Your task to perform on an android device: Clear all items from cart on ebay. Search for usb-a on ebay, select the first entry, and add it to the cart. Image 0: 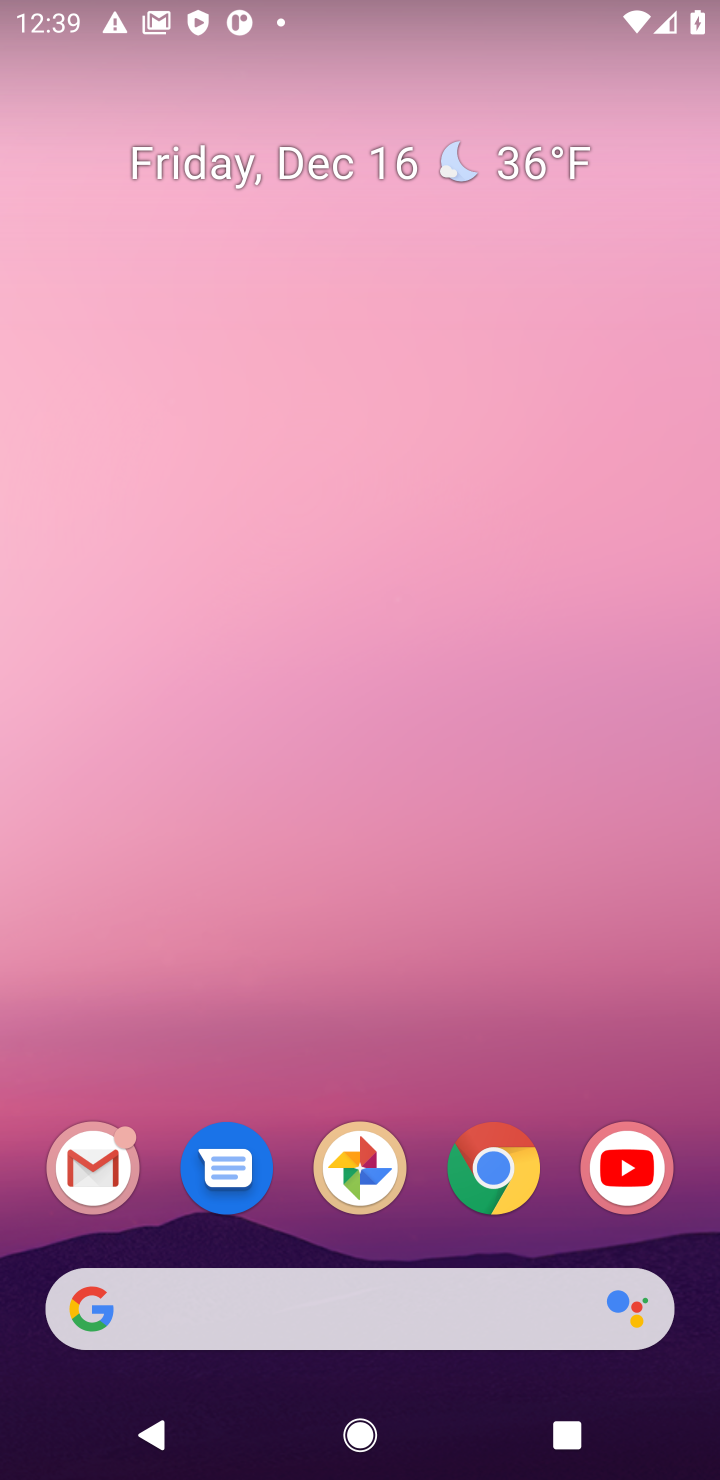
Step 0: click (486, 1158)
Your task to perform on an android device: Clear all items from cart on ebay. Search for usb-a on ebay, select the first entry, and add it to the cart. Image 1: 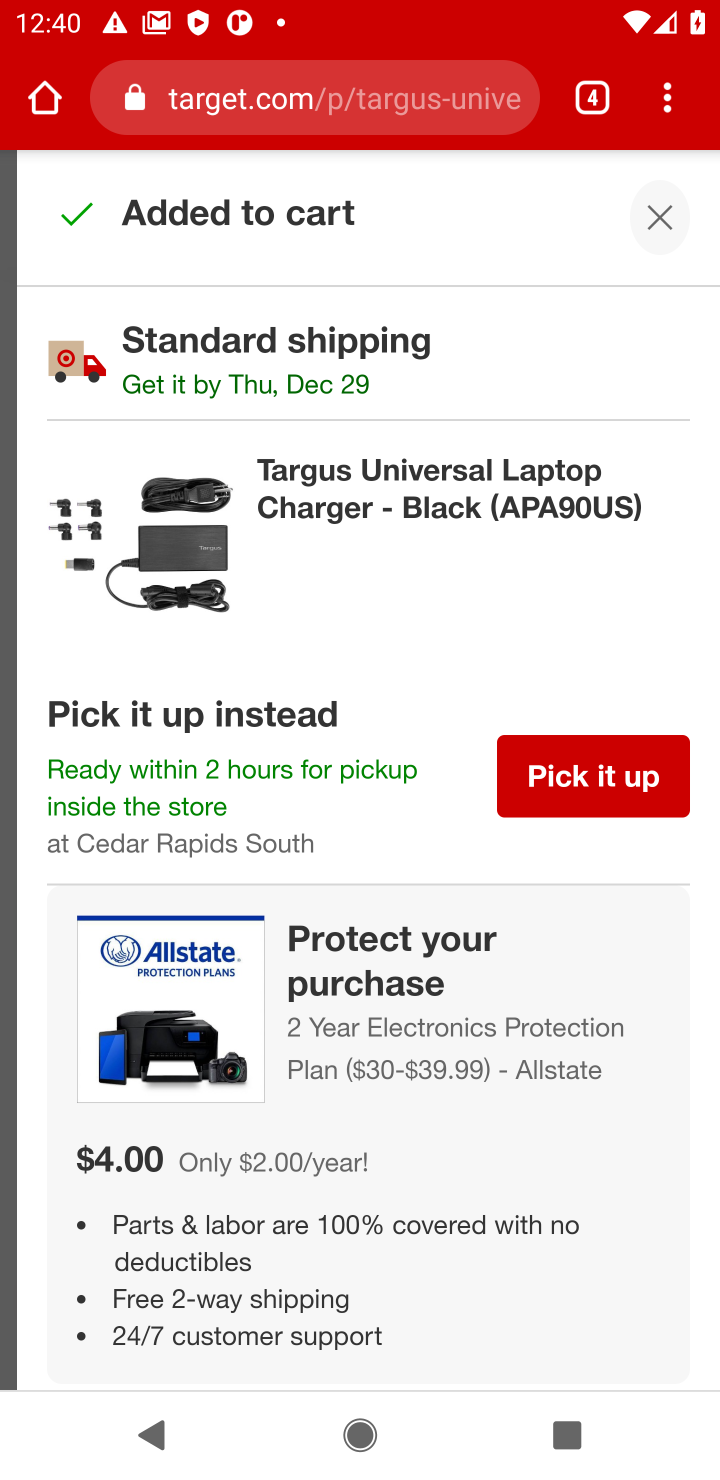
Step 1: click (664, 219)
Your task to perform on an android device: Clear all items from cart on ebay. Search for usb-a on ebay, select the first entry, and add it to the cart. Image 2: 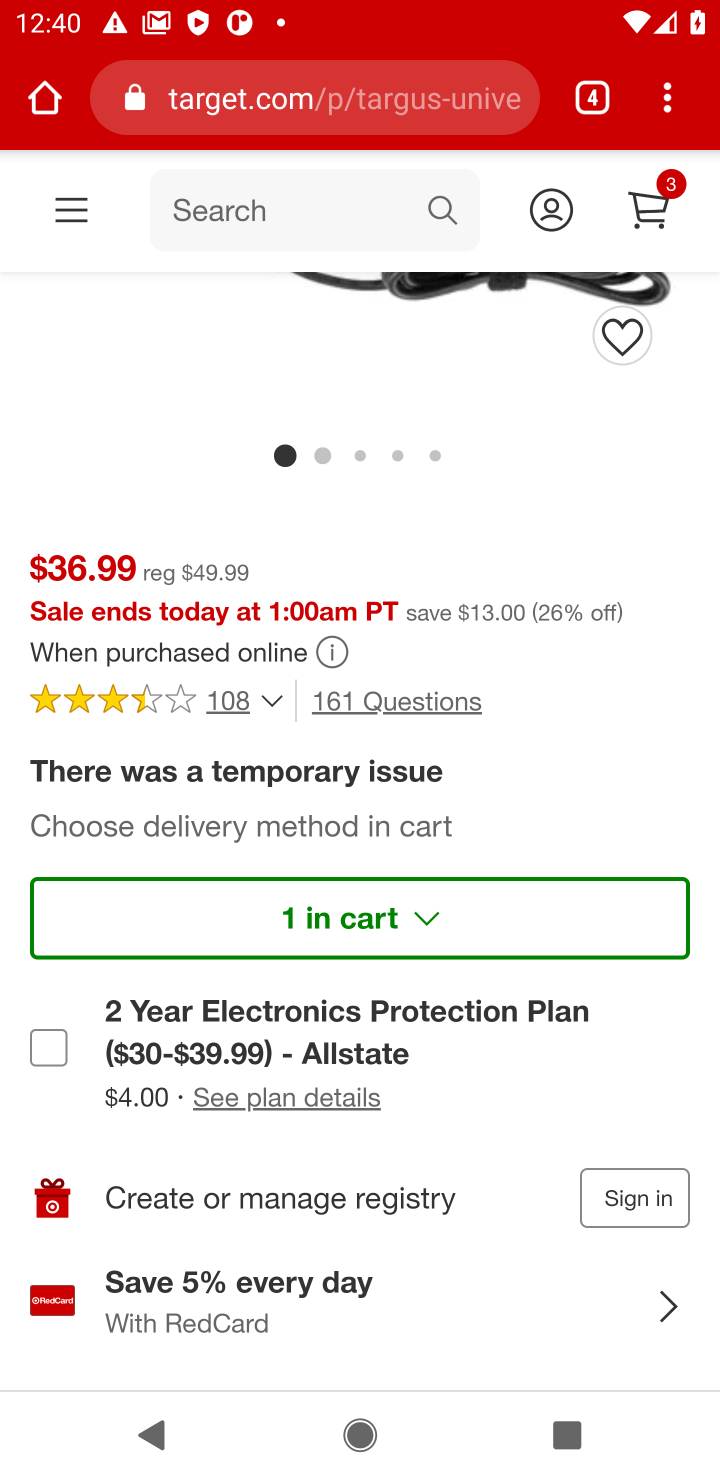
Step 2: click (655, 204)
Your task to perform on an android device: Clear all items from cart on ebay. Search for usb-a on ebay, select the first entry, and add it to the cart. Image 3: 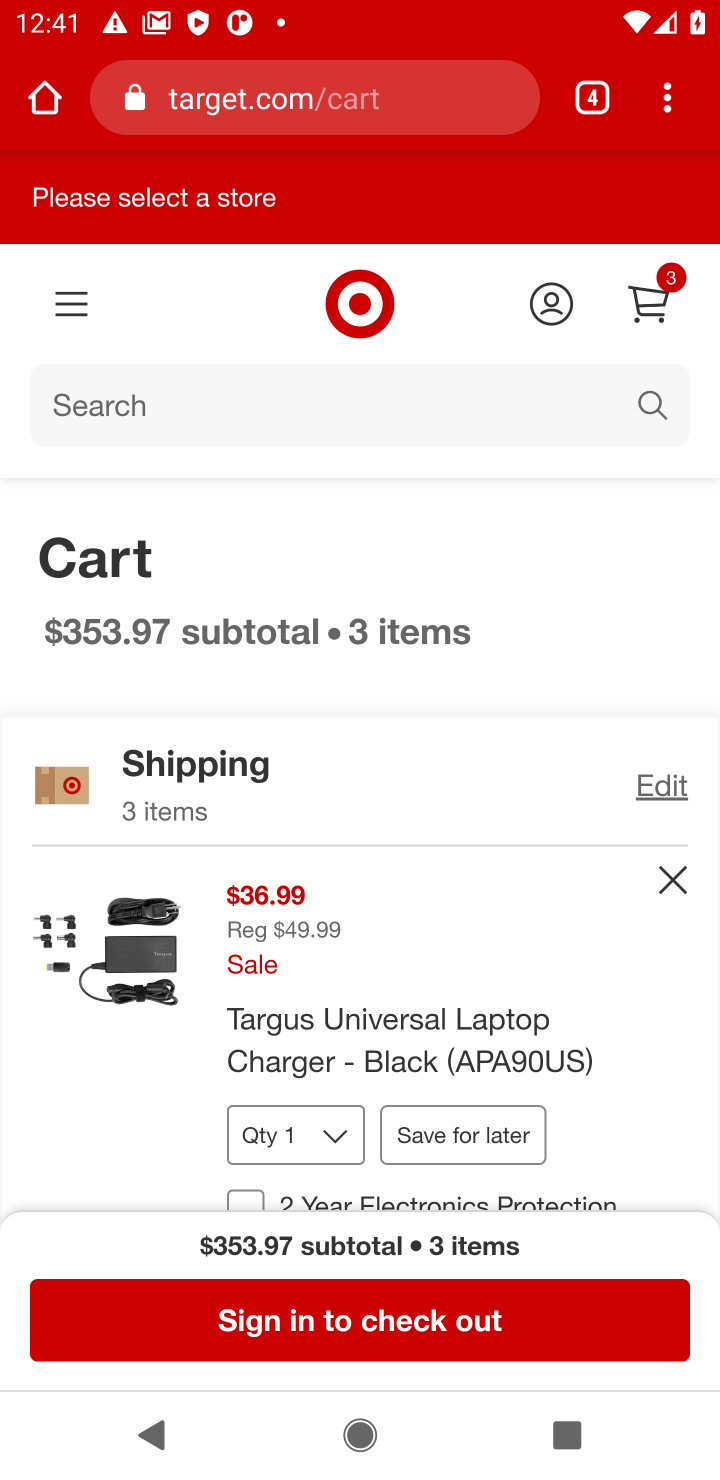
Step 3: click (654, 277)
Your task to perform on an android device: Clear all items from cart on ebay. Search for usb-a on ebay, select the first entry, and add it to the cart. Image 4: 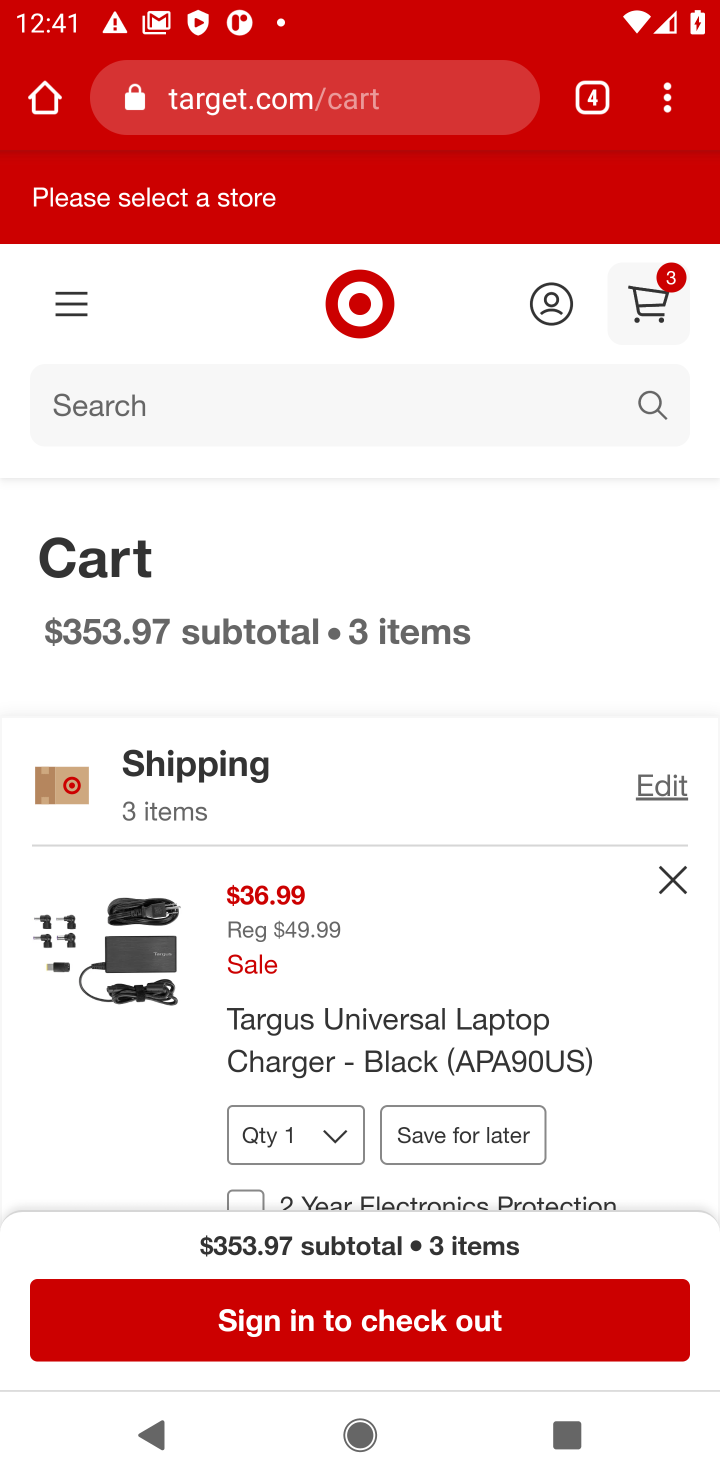
Step 4: click (661, 873)
Your task to perform on an android device: Clear all items from cart on ebay. Search for usb-a on ebay, select the first entry, and add it to the cart. Image 5: 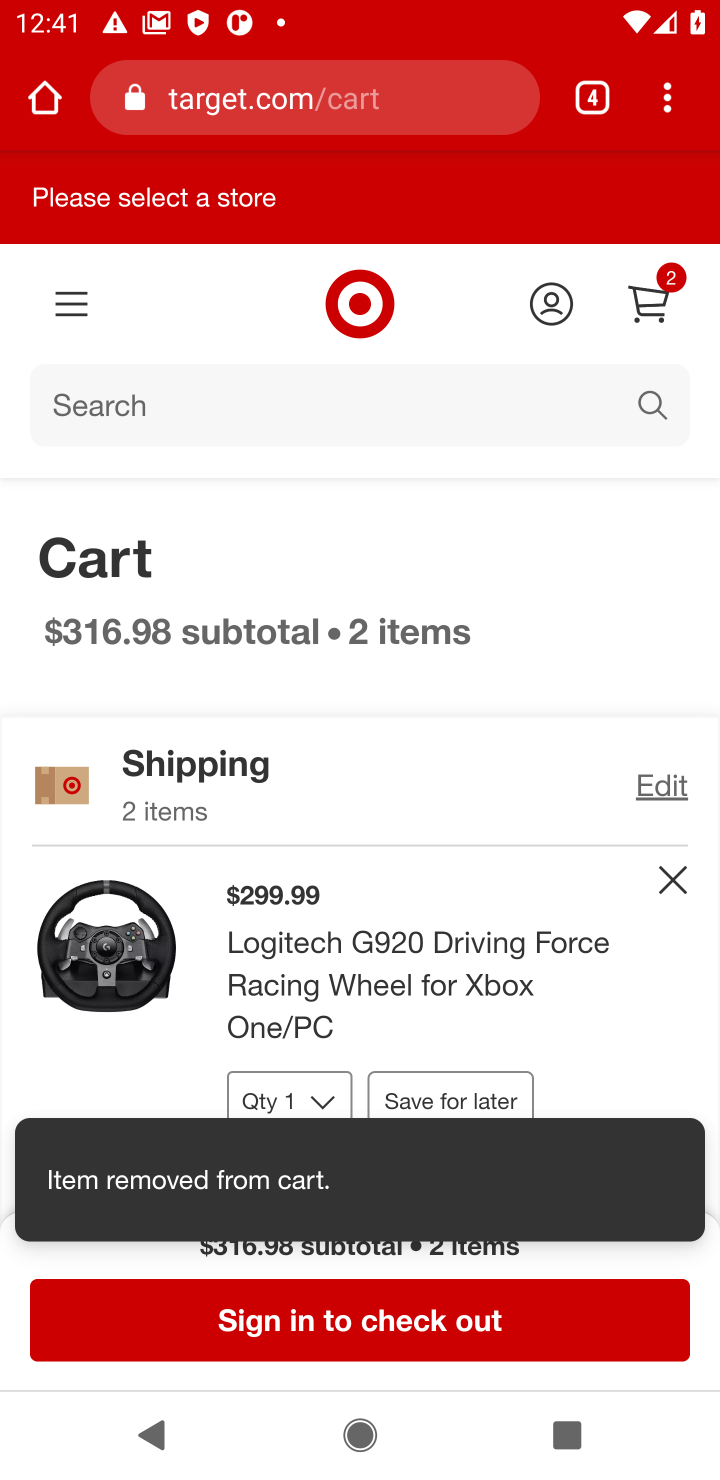
Step 5: click (661, 873)
Your task to perform on an android device: Clear all items from cart on ebay. Search for usb-a on ebay, select the first entry, and add it to the cart. Image 6: 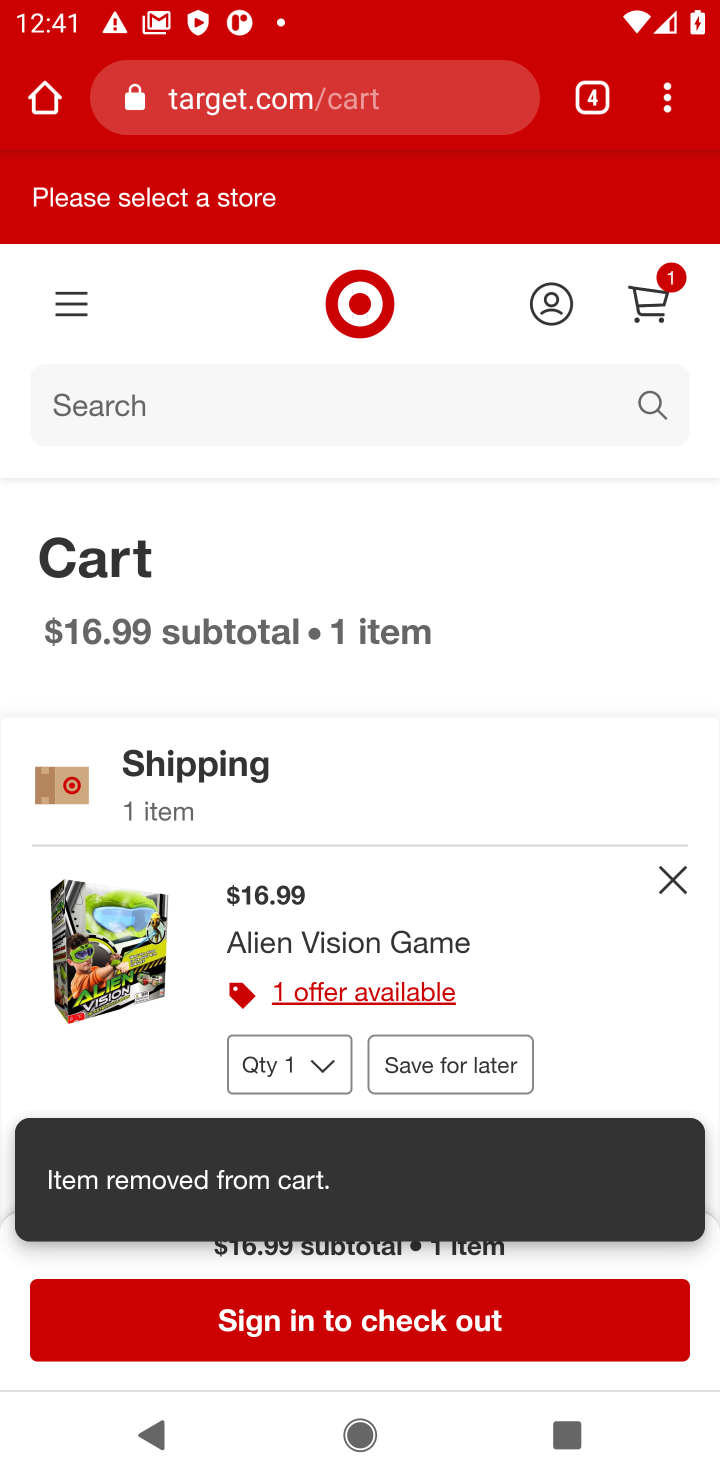
Step 6: click (661, 873)
Your task to perform on an android device: Clear all items from cart on ebay. Search for usb-a on ebay, select the first entry, and add it to the cart. Image 7: 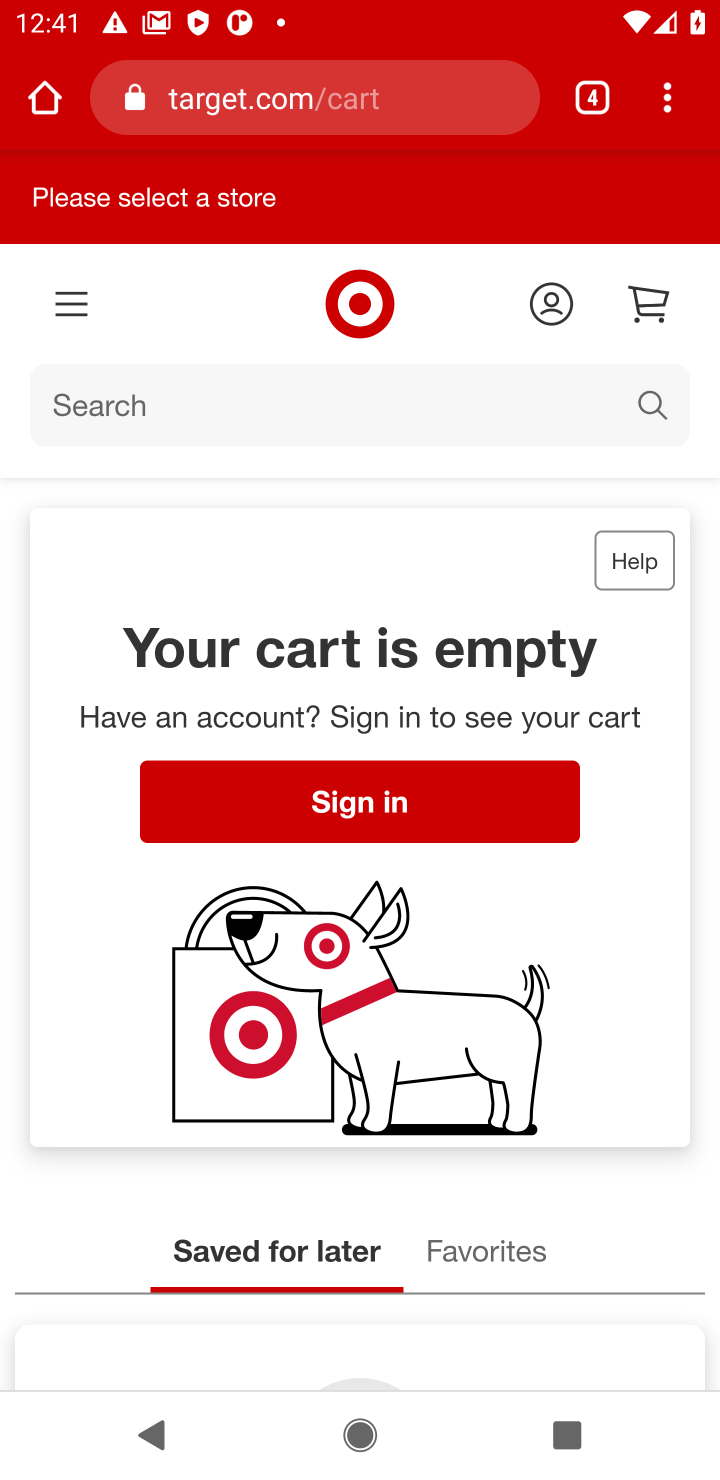
Step 7: click (346, 410)
Your task to perform on an android device: Clear all items from cart on ebay. Search for usb-a on ebay, select the first entry, and add it to the cart. Image 8: 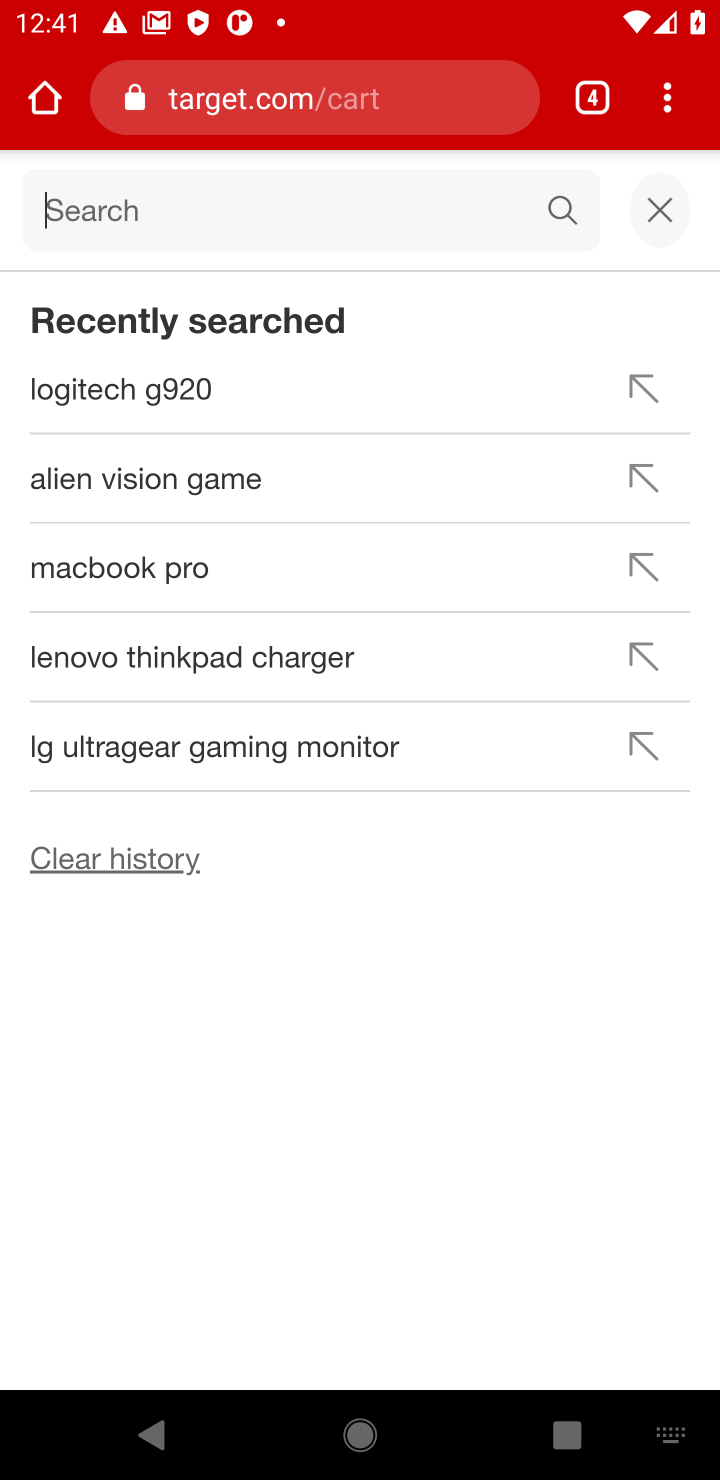
Step 8: type "usb-a"
Your task to perform on an android device: Clear all items from cart on ebay. Search for usb-a on ebay, select the first entry, and add it to the cart. Image 9: 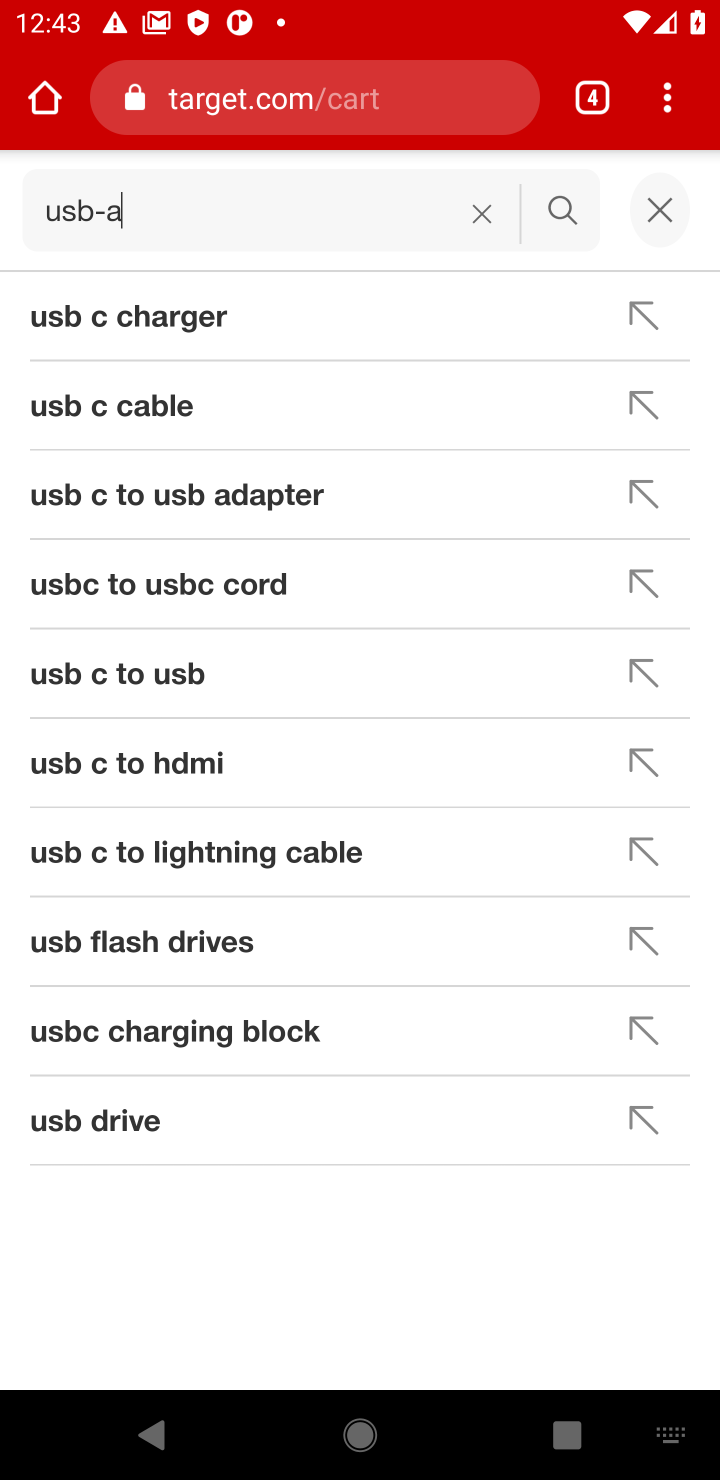
Step 9: click (253, 314)
Your task to perform on an android device: Clear all items from cart on ebay. Search for usb-a on ebay, select the first entry, and add it to the cart. Image 10: 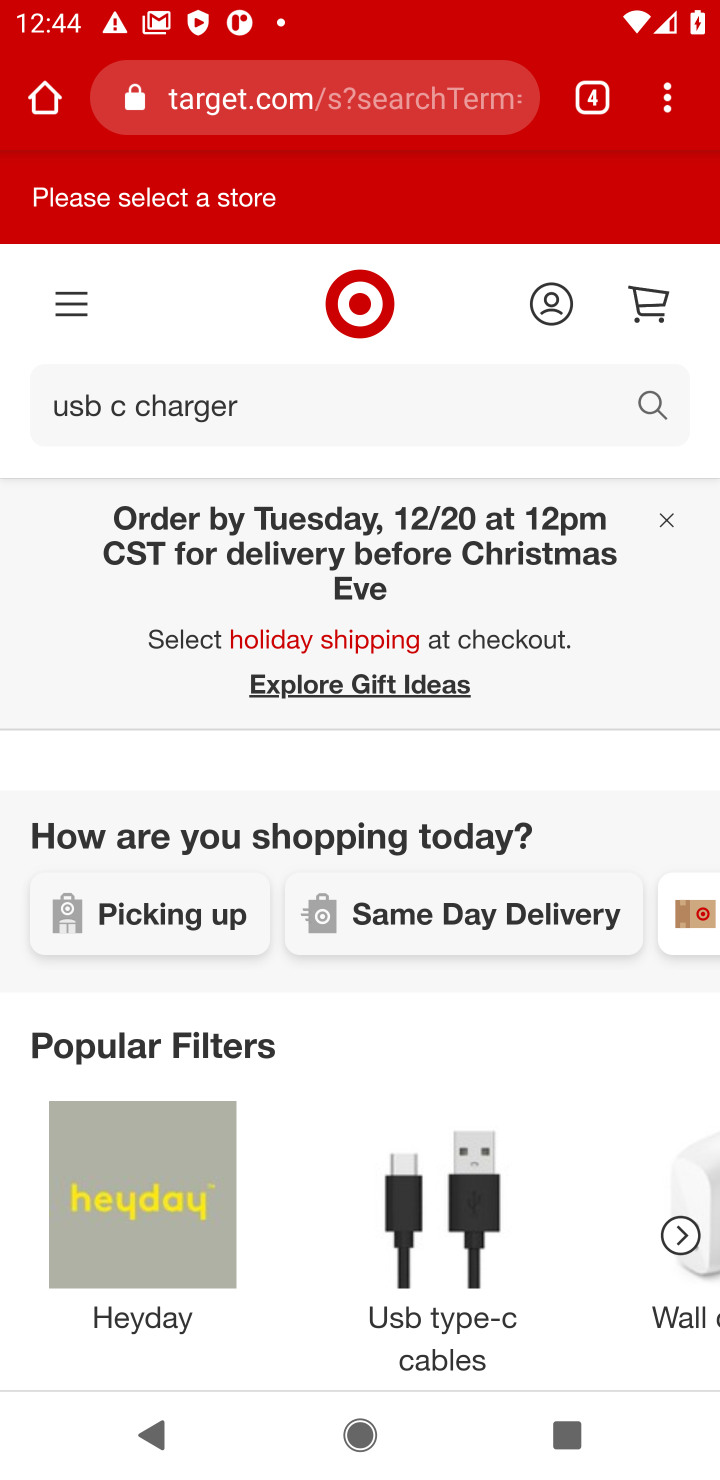
Step 10: task complete